Your task to perform on an android device: toggle data saver in the chrome app Image 0: 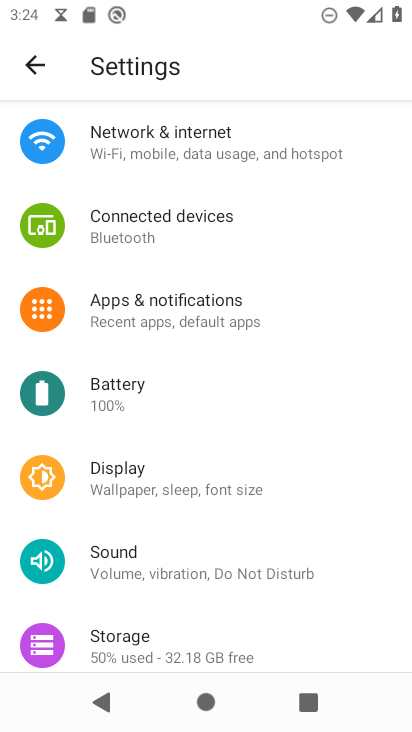
Step 0: press home button
Your task to perform on an android device: toggle data saver in the chrome app Image 1: 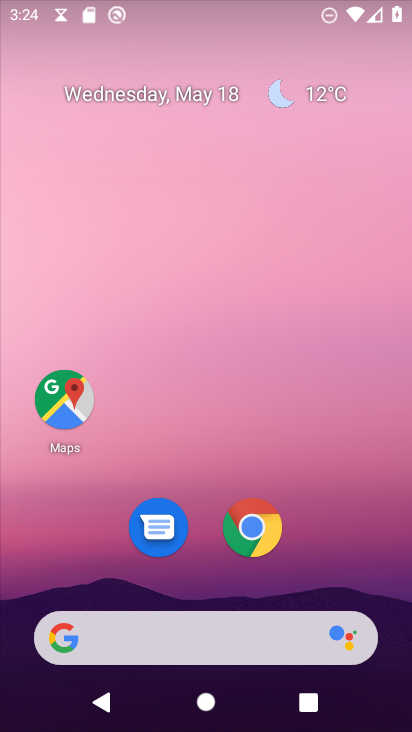
Step 1: click (253, 512)
Your task to perform on an android device: toggle data saver in the chrome app Image 2: 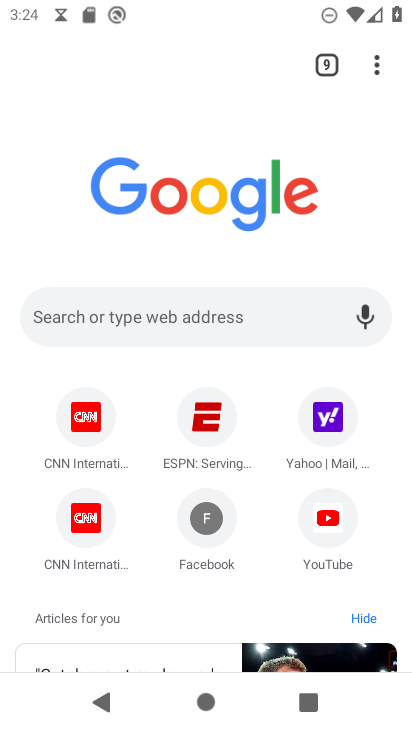
Step 2: click (377, 59)
Your task to perform on an android device: toggle data saver in the chrome app Image 3: 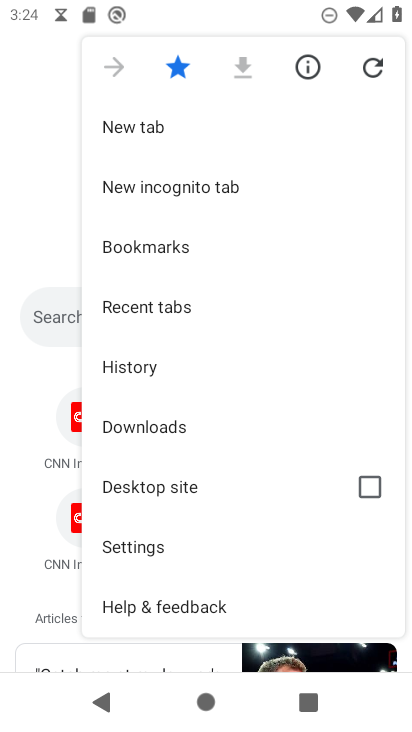
Step 3: click (237, 556)
Your task to perform on an android device: toggle data saver in the chrome app Image 4: 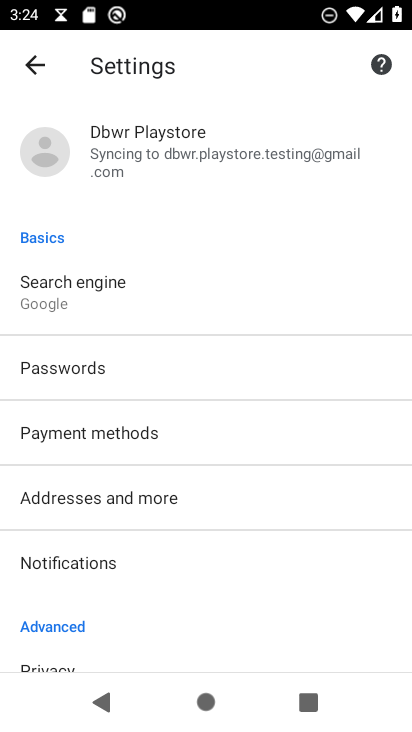
Step 4: drag from (178, 549) to (193, 199)
Your task to perform on an android device: toggle data saver in the chrome app Image 5: 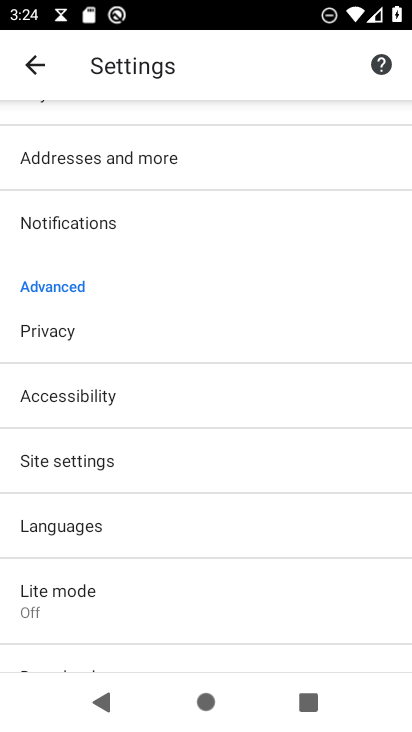
Step 5: drag from (177, 625) to (175, 295)
Your task to perform on an android device: toggle data saver in the chrome app Image 6: 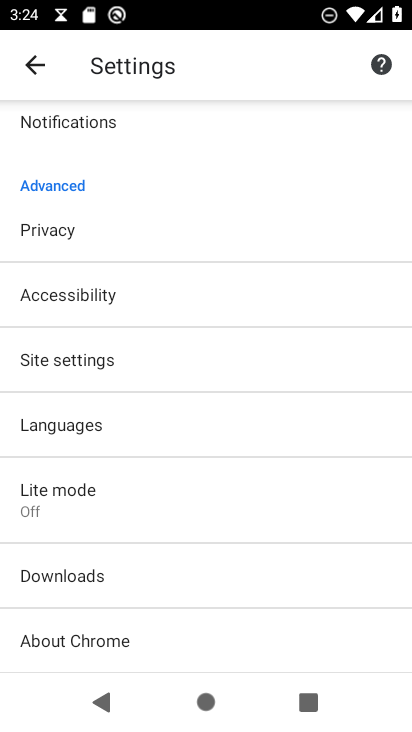
Step 6: click (106, 493)
Your task to perform on an android device: toggle data saver in the chrome app Image 7: 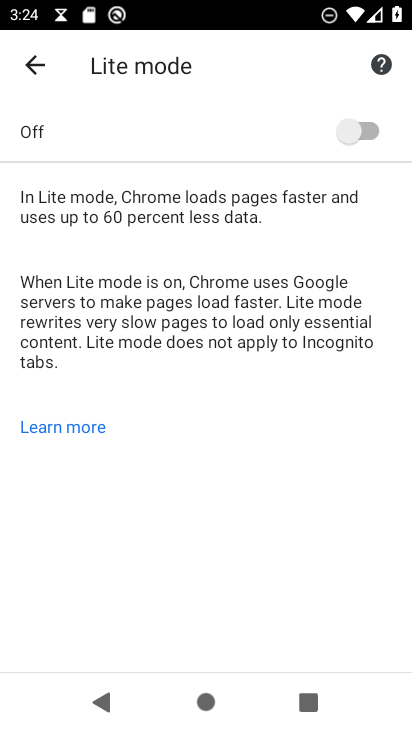
Step 7: click (354, 138)
Your task to perform on an android device: toggle data saver in the chrome app Image 8: 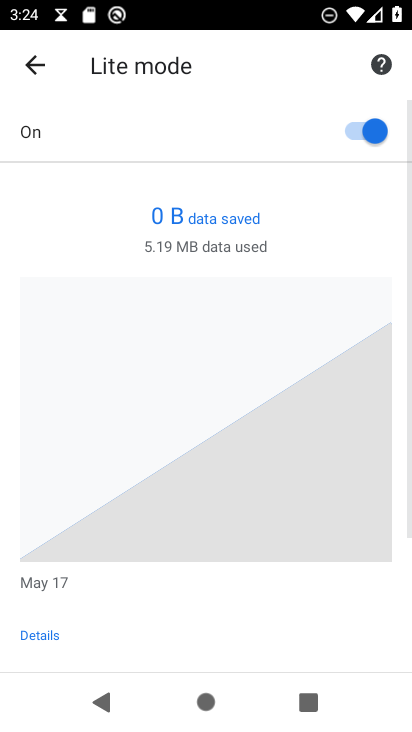
Step 8: task complete